Your task to perform on an android device: Go to Reddit.com Image 0: 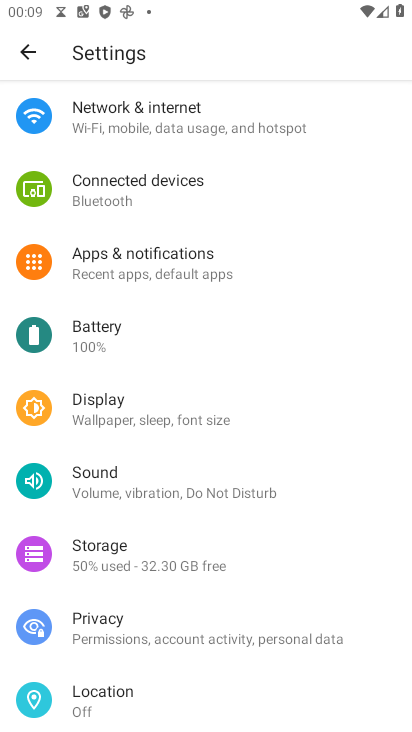
Step 0: press back button
Your task to perform on an android device: Go to Reddit.com Image 1: 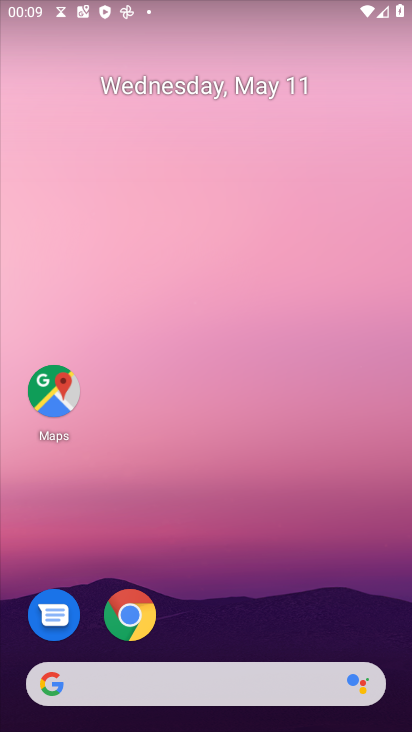
Step 1: click (132, 613)
Your task to perform on an android device: Go to Reddit.com Image 2: 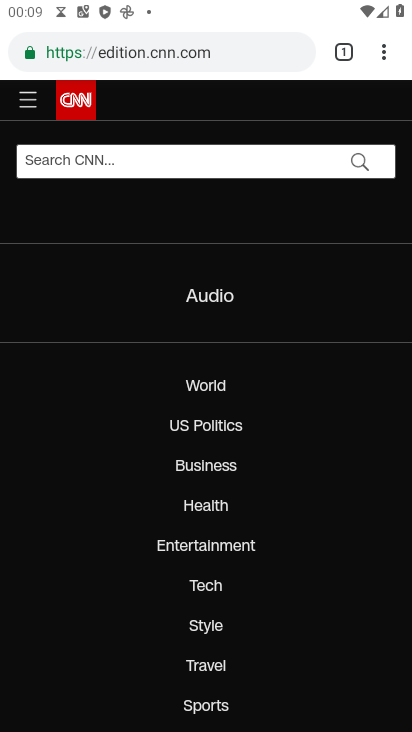
Step 2: click (284, 58)
Your task to perform on an android device: Go to Reddit.com Image 3: 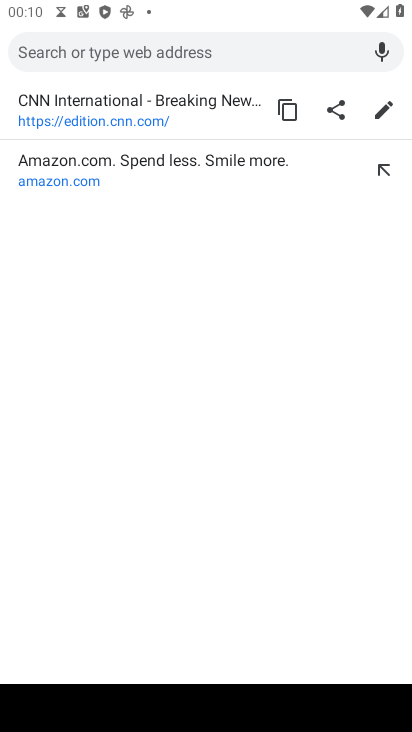
Step 3: type "Reddit.com"
Your task to perform on an android device: Go to Reddit.com Image 4: 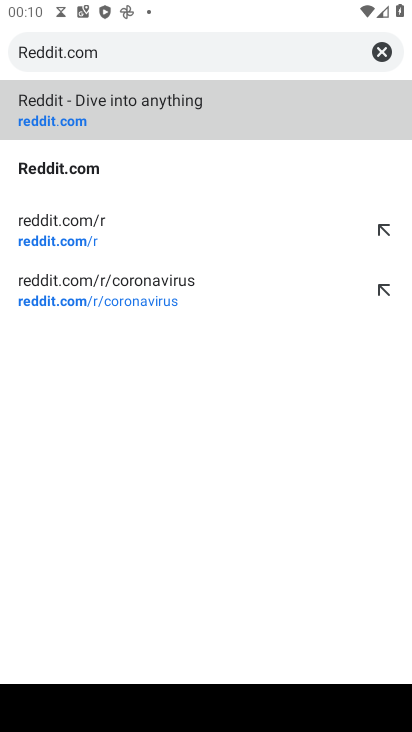
Step 4: click (84, 169)
Your task to perform on an android device: Go to Reddit.com Image 5: 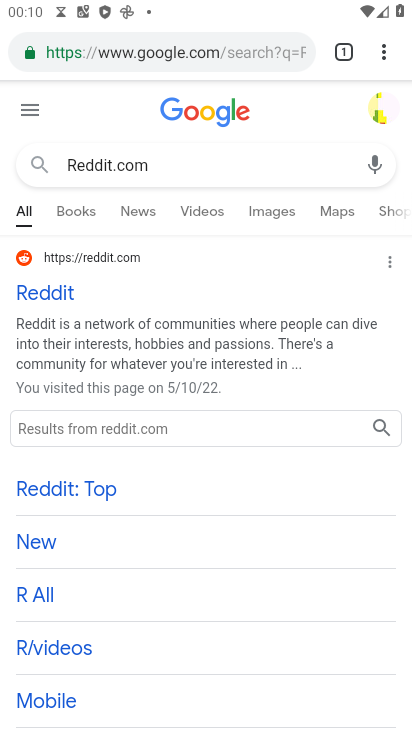
Step 5: click (59, 300)
Your task to perform on an android device: Go to Reddit.com Image 6: 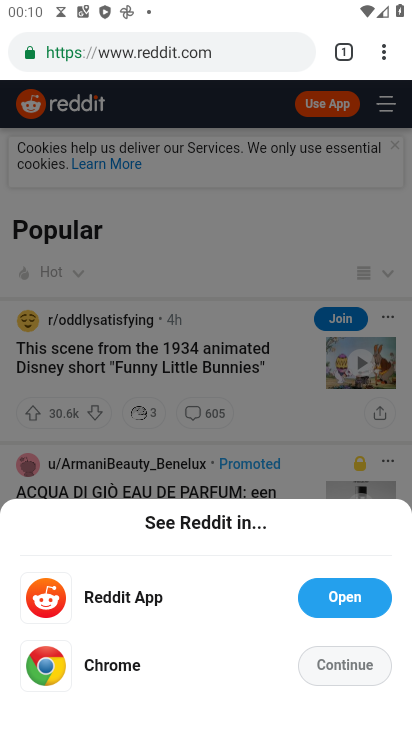
Step 6: click (324, 658)
Your task to perform on an android device: Go to Reddit.com Image 7: 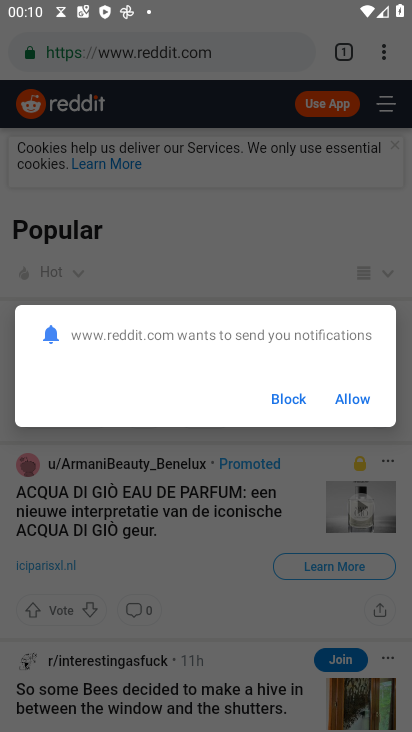
Step 7: click (362, 401)
Your task to perform on an android device: Go to Reddit.com Image 8: 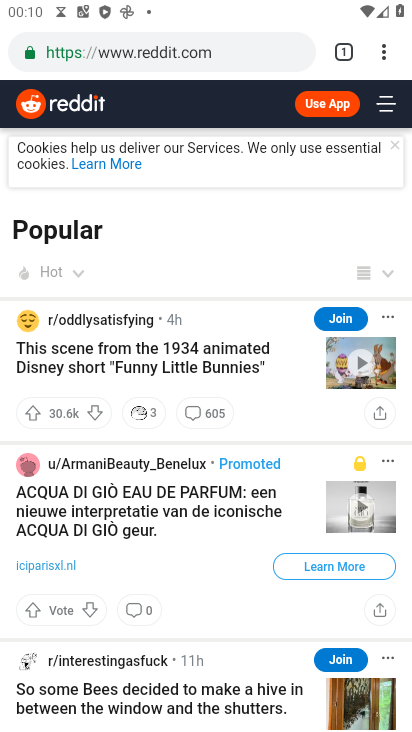
Step 8: task complete